Your task to perform on an android device: Clear the shopping cart on newegg.com. Search for "jbl charge 4" on newegg.com, select the first entry, and add it to the cart. Image 0: 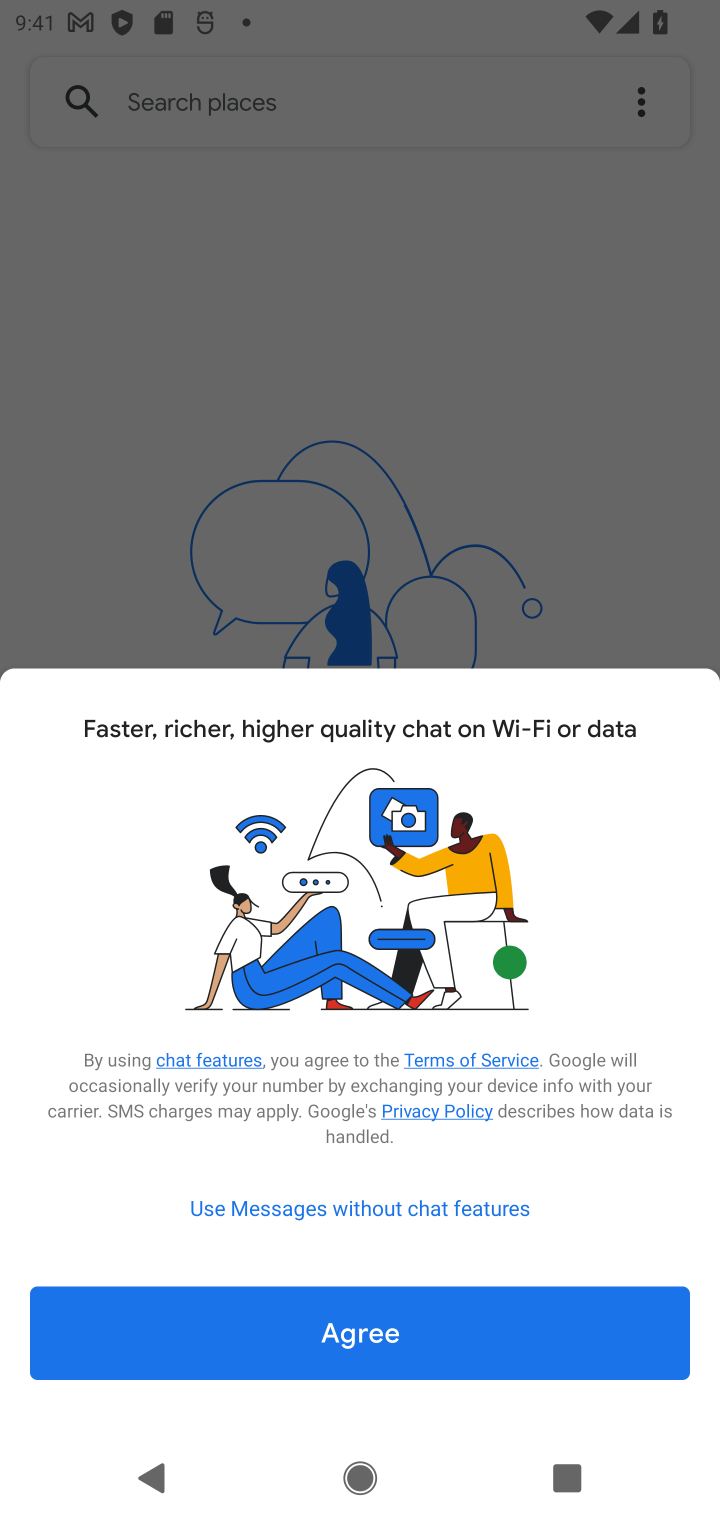
Step 0: task complete